Your task to perform on an android device: Turn off the flashlight Image 0: 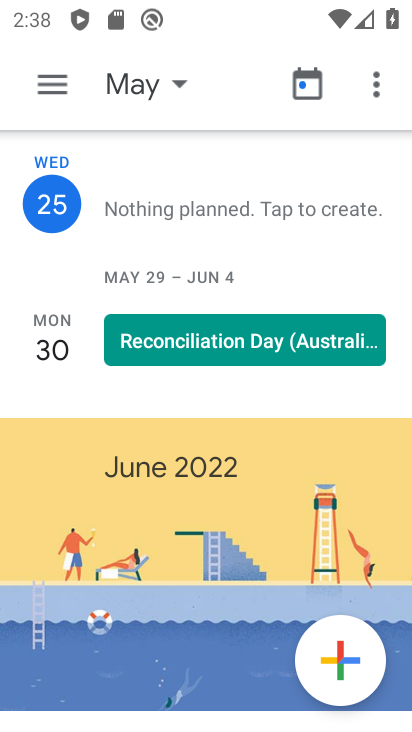
Step 0: drag from (197, 10) to (159, 406)
Your task to perform on an android device: Turn off the flashlight Image 1: 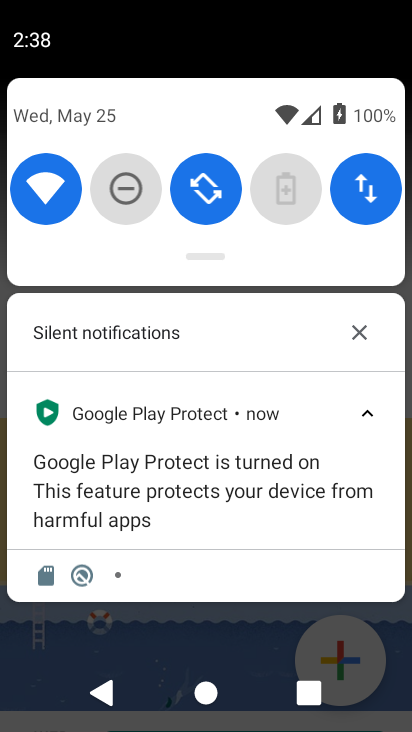
Step 1: drag from (167, 232) to (227, 705)
Your task to perform on an android device: Turn off the flashlight Image 2: 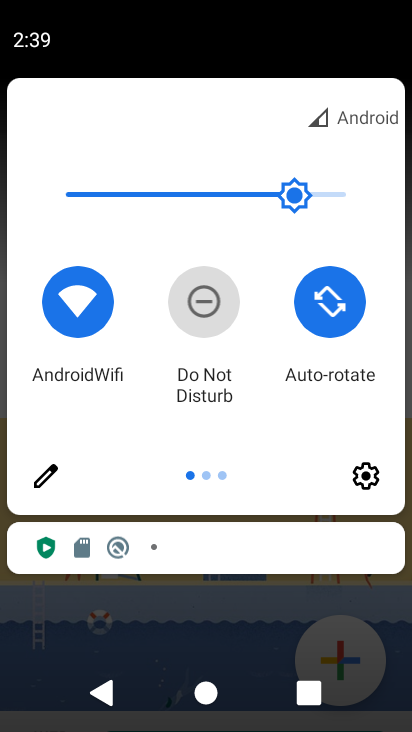
Step 2: click (46, 472)
Your task to perform on an android device: Turn off the flashlight Image 3: 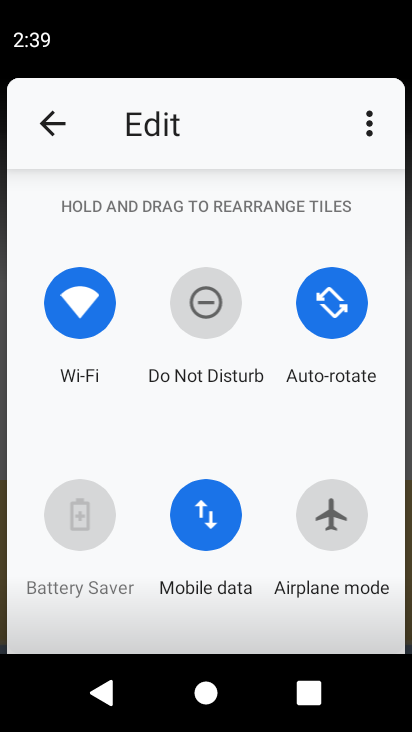
Step 3: task complete